Your task to perform on an android device: Open the phone app and click the voicemail tab. Image 0: 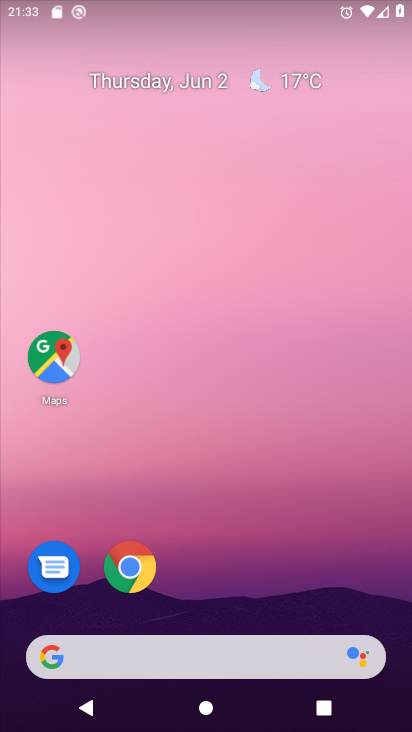
Step 0: drag from (203, 598) to (208, 331)
Your task to perform on an android device: Open the phone app and click the voicemail tab. Image 1: 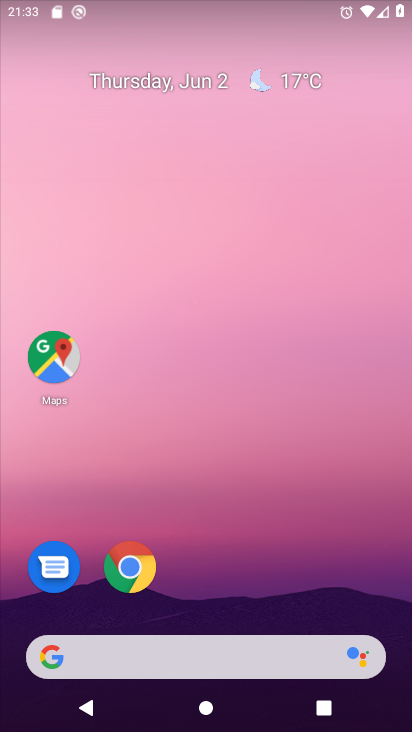
Step 1: drag from (186, 604) to (246, 172)
Your task to perform on an android device: Open the phone app and click the voicemail tab. Image 2: 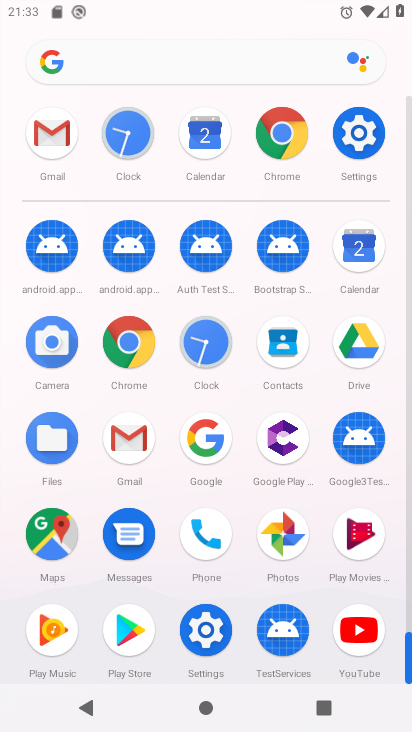
Step 2: click (205, 537)
Your task to perform on an android device: Open the phone app and click the voicemail tab. Image 3: 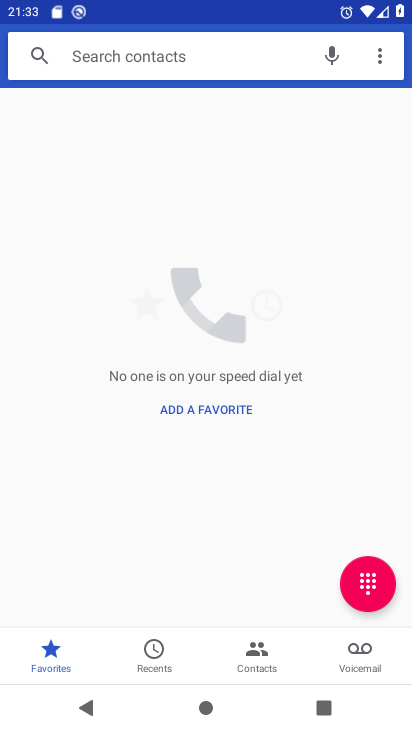
Step 3: click (366, 655)
Your task to perform on an android device: Open the phone app and click the voicemail tab. Image 4: 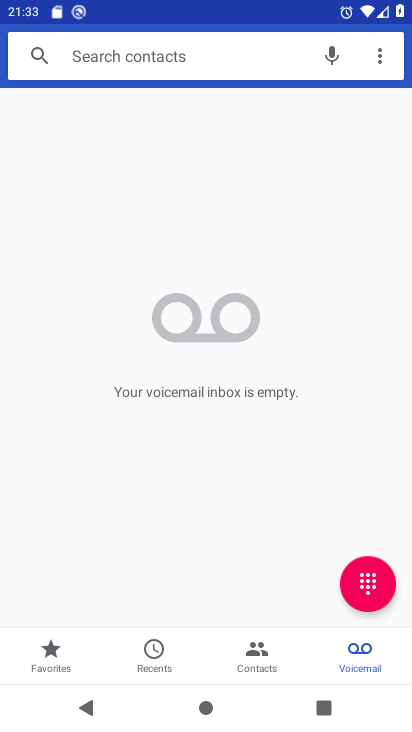
Step 4: task complete